Your task to perform on an android device: turn off priority inbox in the gmail app Image 0: 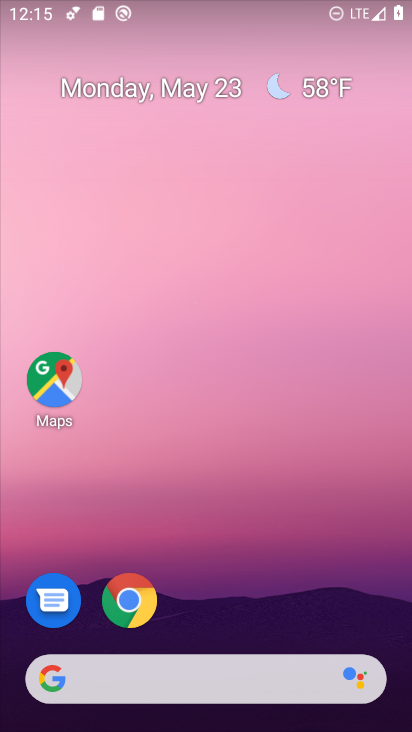
Step 0: drag from (284, 578) to (258, 70)
Your task to perform on an android device: turn off priority inbox in the gmail app Image 1: 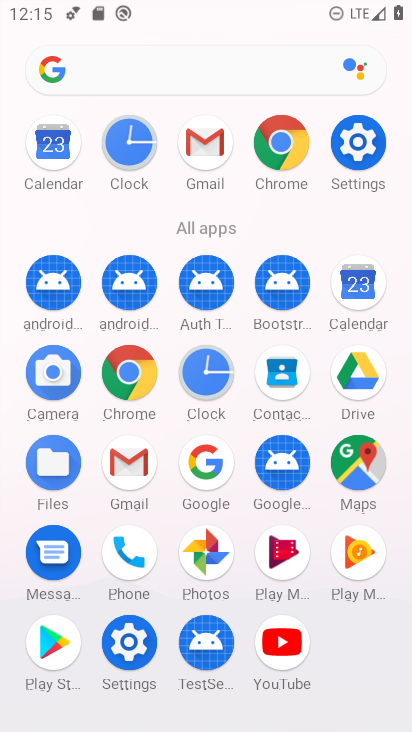
Step 1: click (208, 137)
Your task to perform on an android device: turn off priority inbox in the gmail app Image 2: 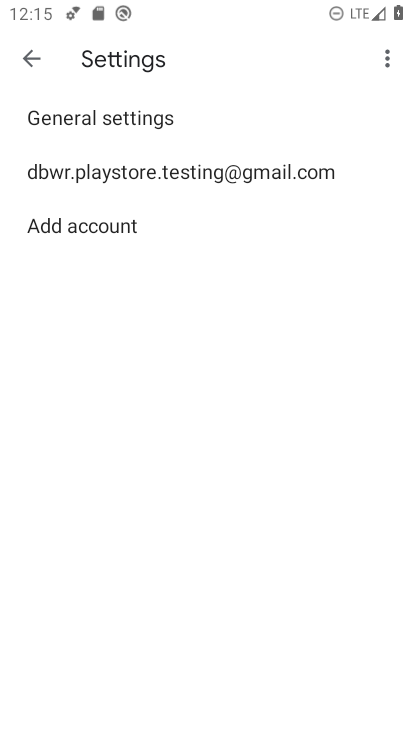
Step 2: click (26, 69)
Your task to perform on an android device: turn off priority inbox in the gmail app Image 3: 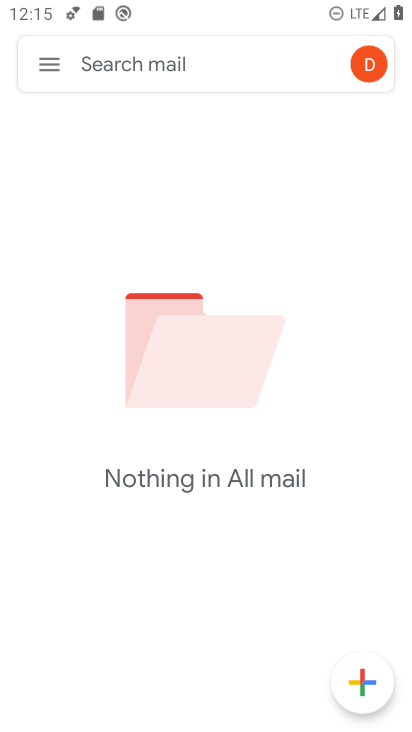
Step 3: click (26, 70)
Your task to perform on an android device: turn off priority inbox in the gmail app Image 4: 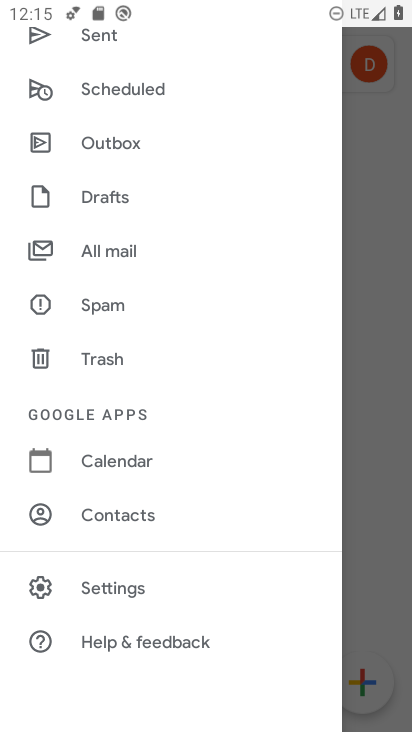
Step 4: click (118, 580)
Your task to perform on an android device: turn off priority inbox in the gmail app Image 5: 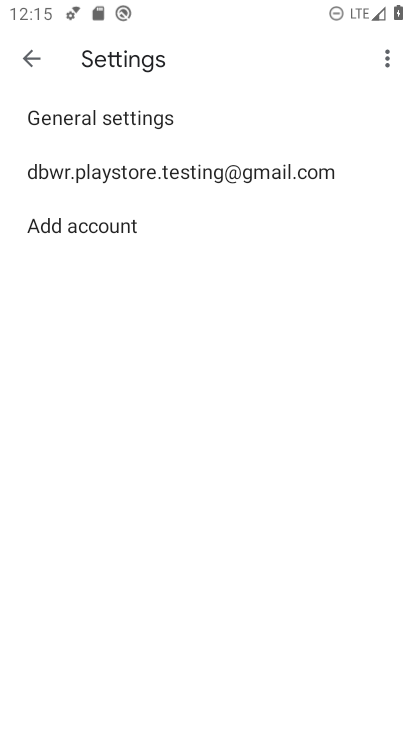
Step 5: click (181, 185)
Your task to perform on an android device: turn off priority inbox in the gmail app Image 6: 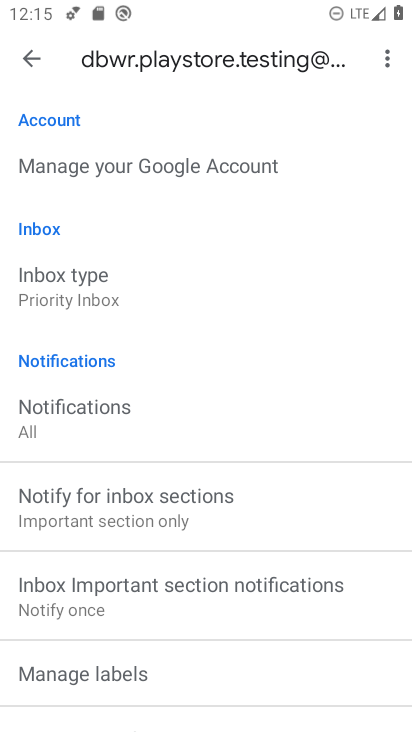
Step 6: click (45, 289)
Your task to perform on an android device: turn off priority inbox in the gmail app Image 7: 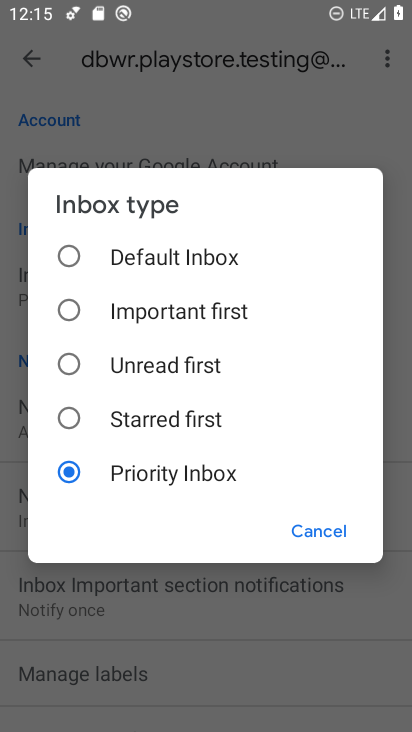
Step 7: click (96, 254)
Your task to perform on an android device: turn off priority inbox in the gmail app Image 8: 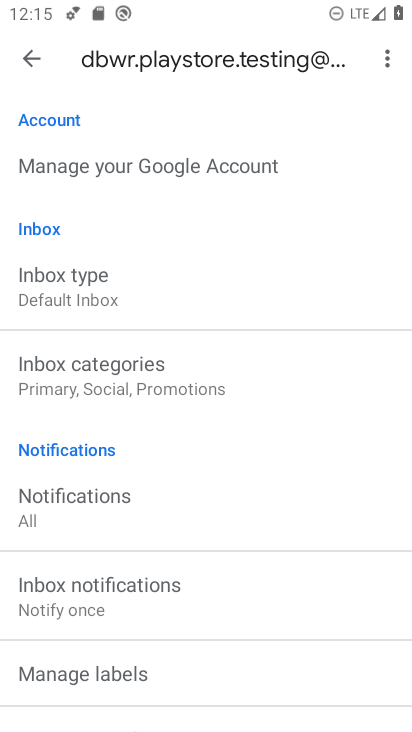
Step 8: task complete